Your task to perform on an android device: turn smart compose on in the gmail app Image 0: 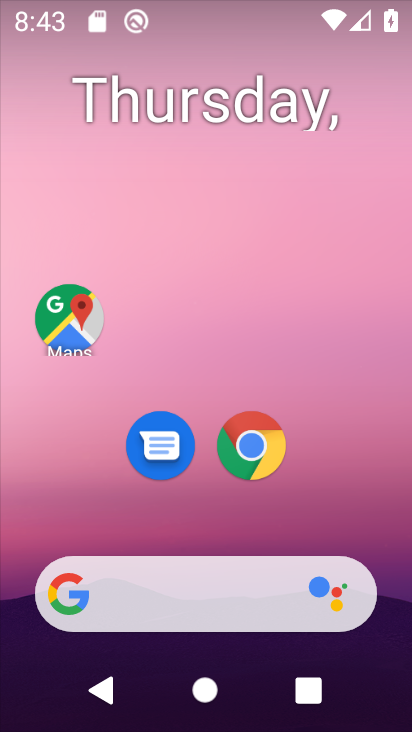
Step 0: drag from (336, 522) to (189, 112)
Your task to perform on an android device: turn smart compose on in the gmail app Image 1: 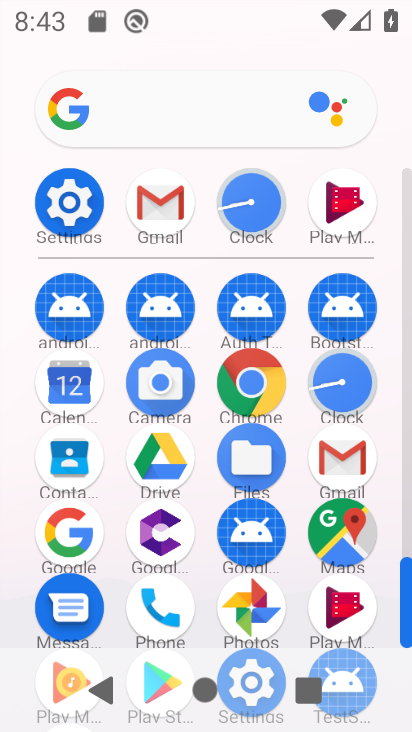
Step 1: click (169, 178)
Your task to perform on an android device: turn smart compose on in the gmail app Image 2: 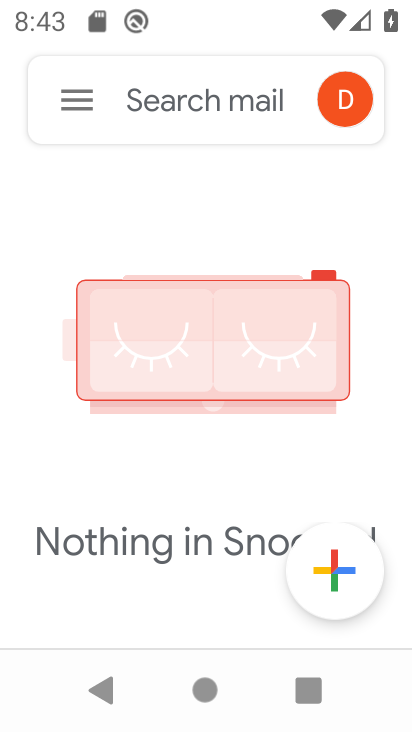
Step 2: click (80, 102)
Your task to perform on an android device: turn smart compose on in the gmail app Image 3: 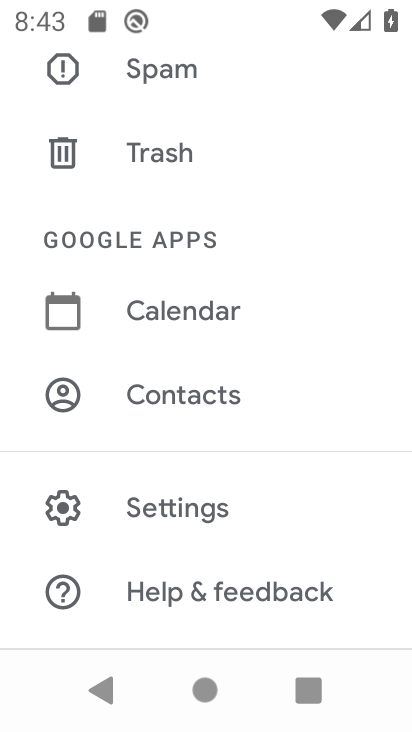
Step 3: click (195, 505)
Your task to perform on an android device: turn smart compose on in the gmail app Image 4: 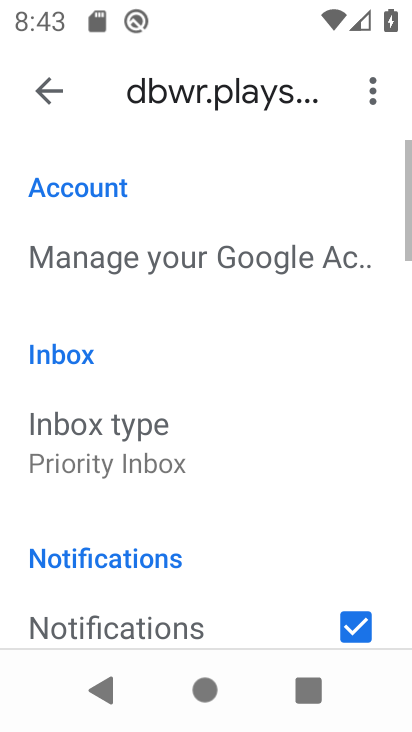
Step 4: task complete